Your task to perform on an android device: toggle notification dots Image 0: 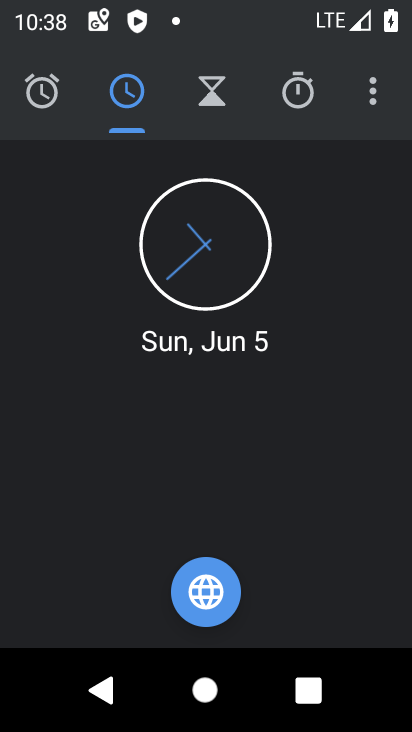
Step 0: press home button
Your task to perform on an android device: toggle notification dots Image 1: 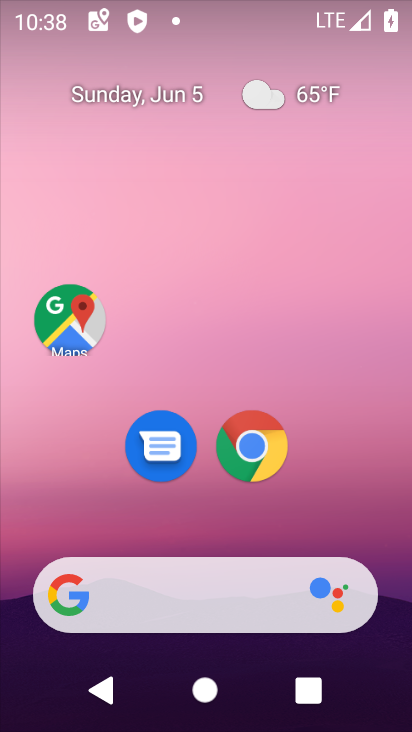
Step 1: drag from (221, 537) to (262, 105)
Your task to perform on an android device: toggle notification dots Image 2: 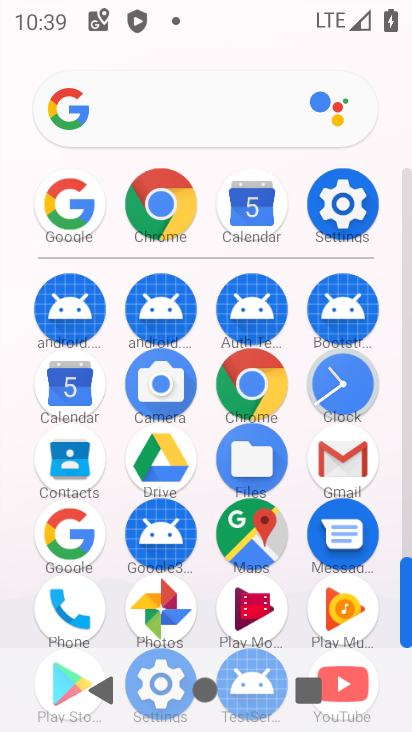
Step 2: click (335, 218)
Your task to perform on an android device: toggle notification dots Image 3: 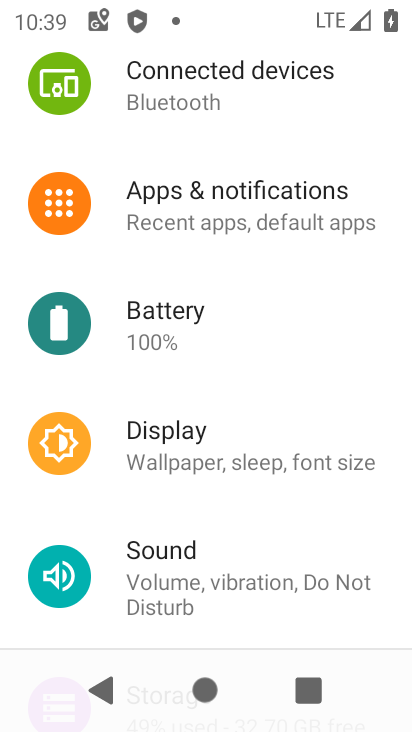
Step 3: click (223, 217)
Your task to perform on an android device: toggle notification dots Image 4: 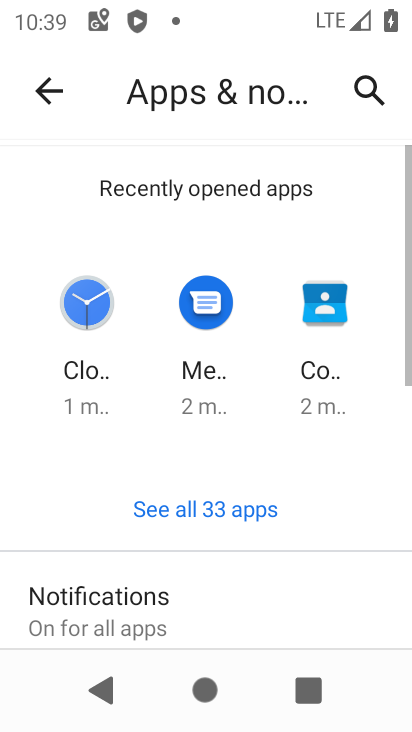
Step 4: drag from (248, 586) to (226, 385)
Your task to perform on an android device: toggle notification dots Image 5: 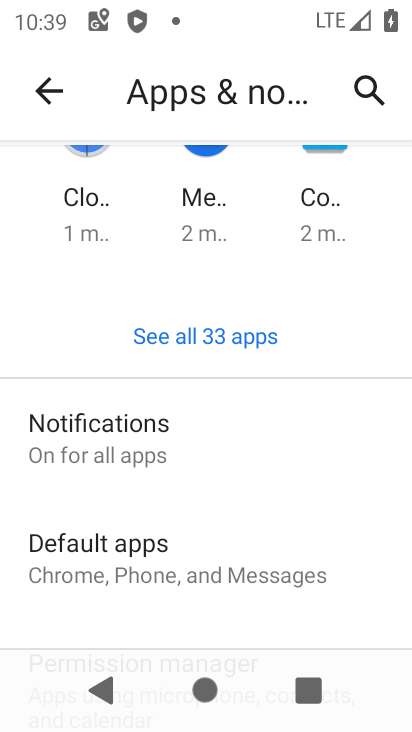
Step 5: click (144, 455)
Your task to perform on an android device: toggle notification dots Image 6: 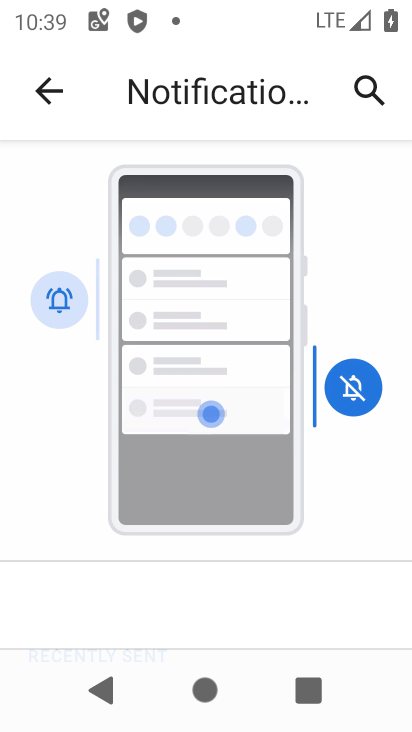
Step 6: drag from (254, 587) to (229, 390)
Your task to perform on an android device: toggle notification dots Image 7: 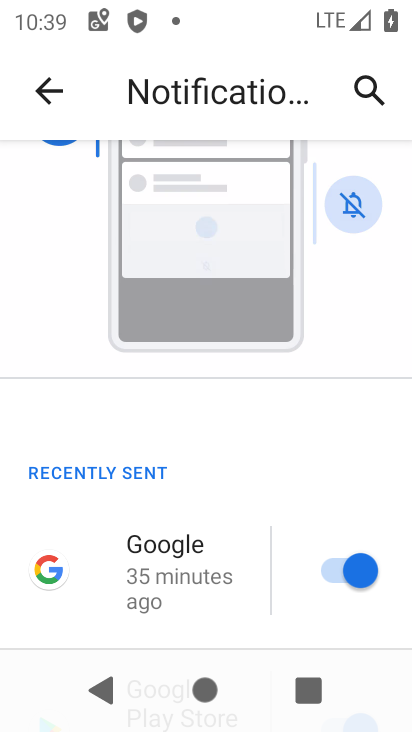
Step 7: drag from (238, 613) to (238, 272)
Your task to perform on an android device: toggle notification dots Image 8: 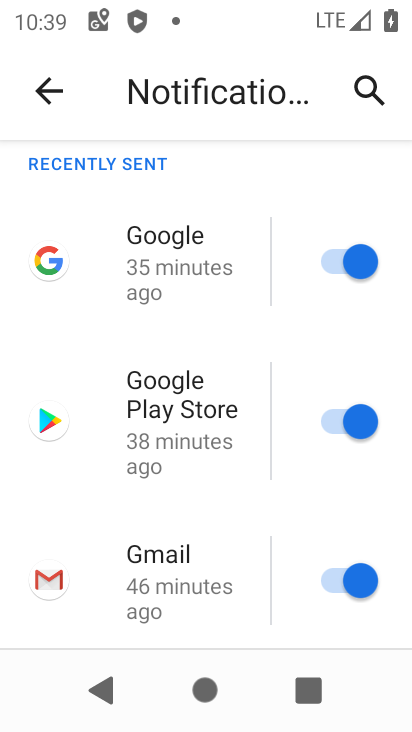
Step 8: drag from (202, 589) to (182, 244)
Your task to perform on an android device: toggle notification dots Image 9: 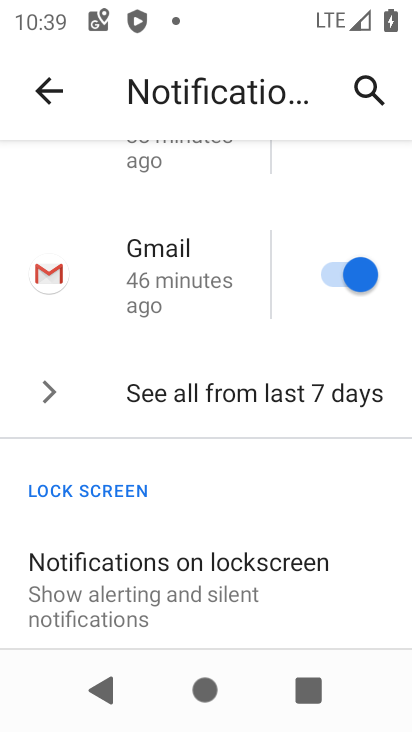
Step 9: drag from (243, 592) to (232, 298)
Your task to perform on an android device: toggle notification dots Image 10: 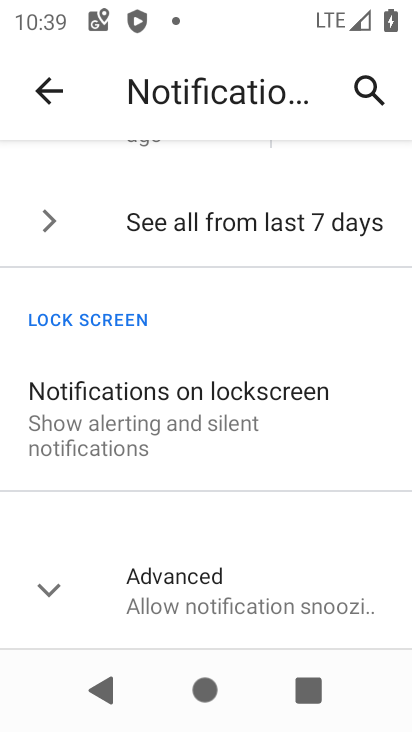
Step 10: click (181, 612)
Your task to perform on an android device: toggle notification dots Image 11: 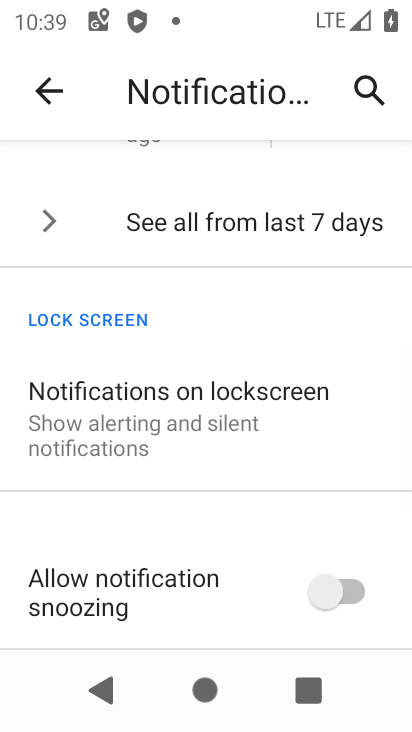
Step 11: drag from (166, 641) to (103, 234)
Your task to perform on an android device: toggle notification dots Image 12: 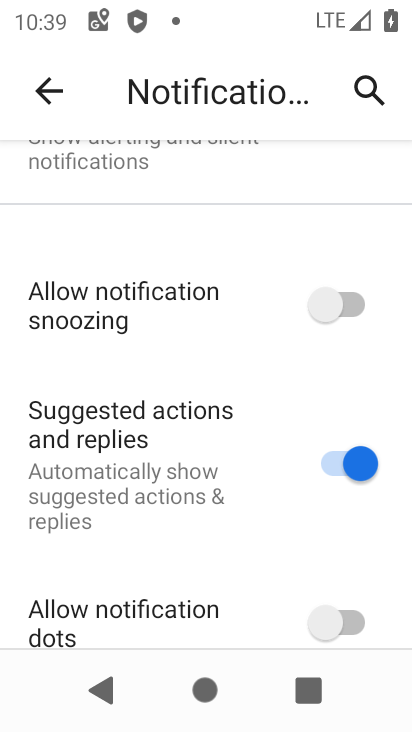
Step 12: drag from (199, 566) to (206, 279)
Your task to perform on an android device: toggle notification dots Image 13: 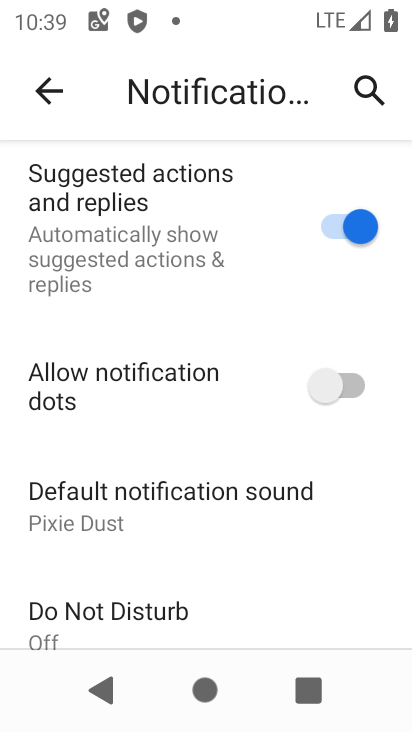
Step 13: click (359, 388)
Your task to perform on an android device: toggle notification dots Image 14: 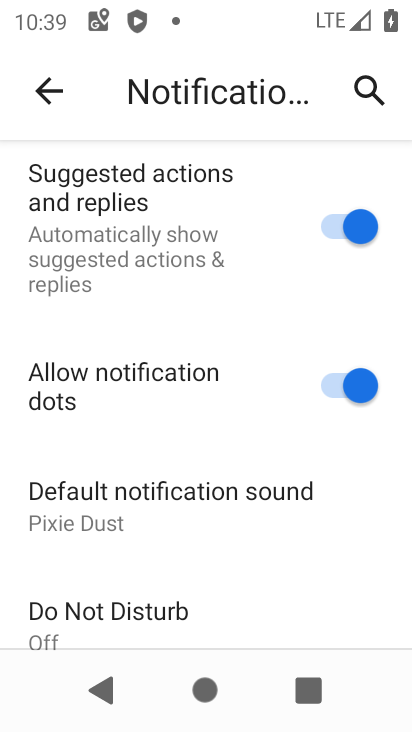
Step 14: task complete